Your task to perform on an android device: Open Amazon Image 0: 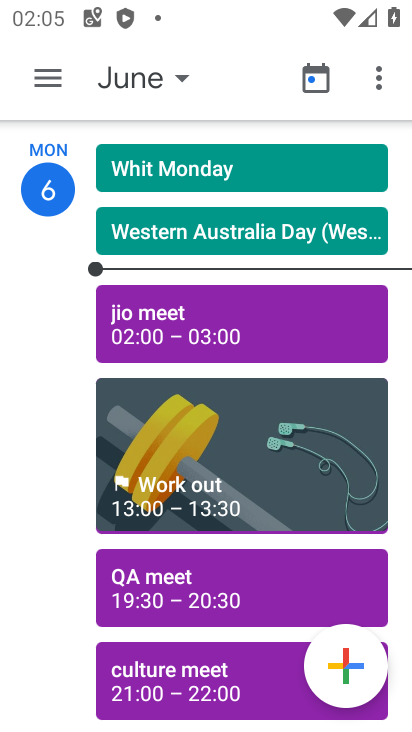
Step 0: press home button
Your task to perform on an android device: Open Amazon Image 1: 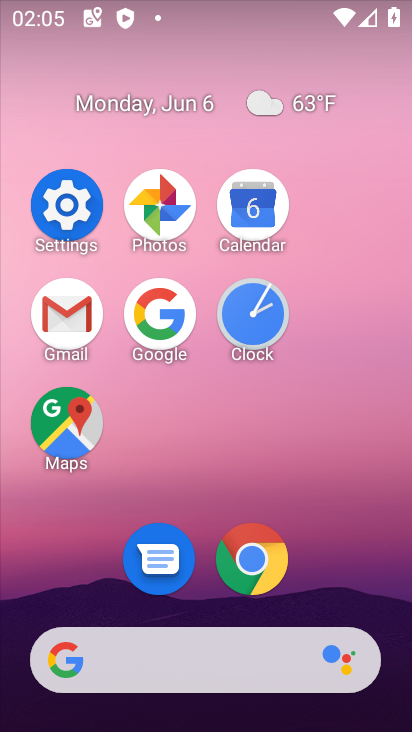
Step 1: click (236, 542)
Your task to perform on an android device: Open Amazon Image 2: 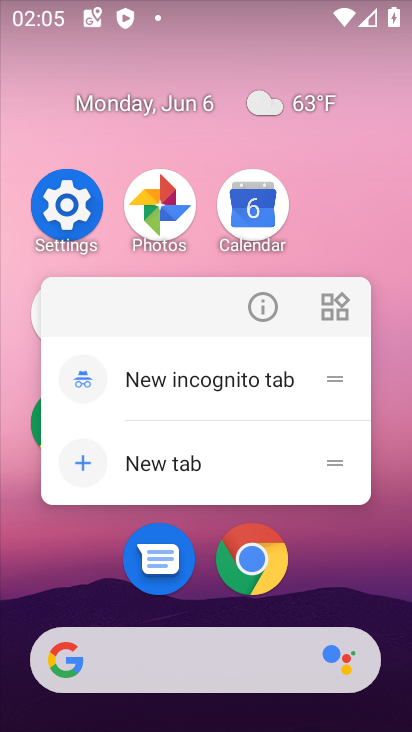
Step 2: click (248, 557)
Your task to perform on an android device: Open Amazon Image 3: 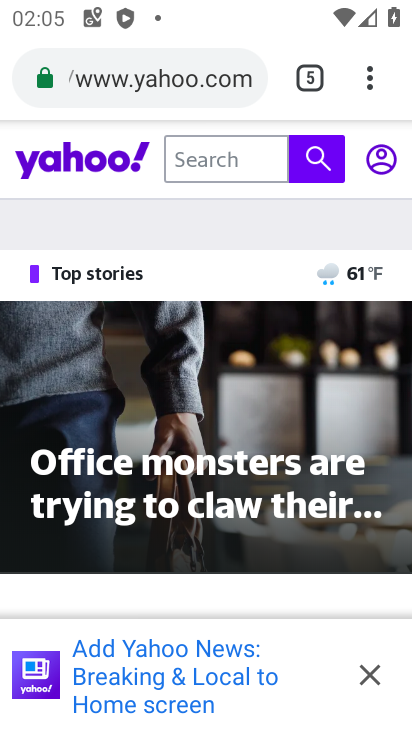
Step 3: click (321, 81)
Your task to perform on an android device: Open Amazon Image 4: 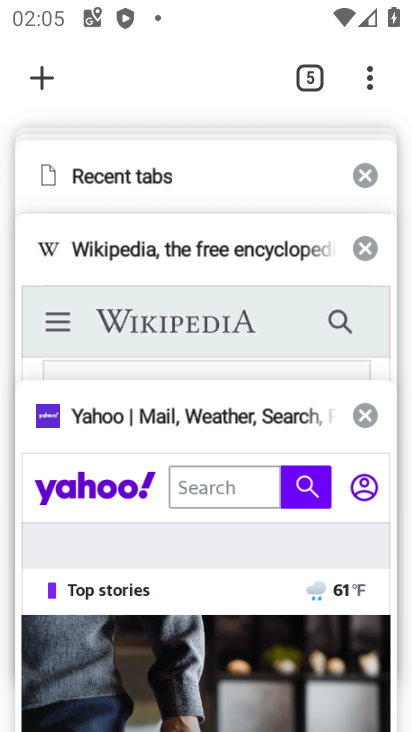
Step 4: drag from (206, 223) to (187, 551)
Your task to perform on an android device: Open Amazon Image 5: 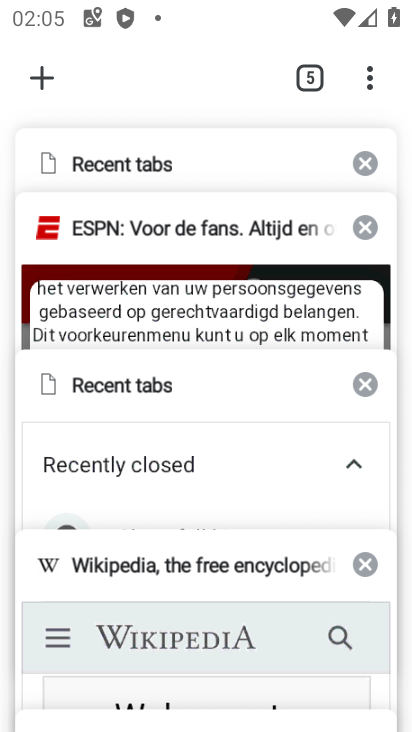
Step 5: drag from (177, 204) to (229, 520)
Your task to perform on an android device: Open Amazon Image 6: 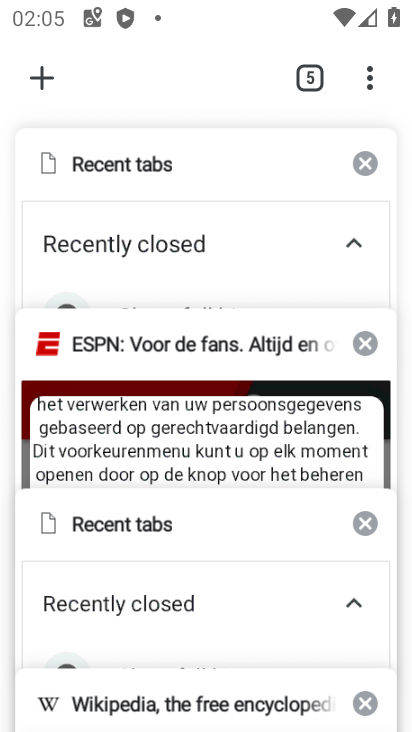
Step 6: click (45, 78)
Your task to perform on an android device: Open Amazon Image 7: 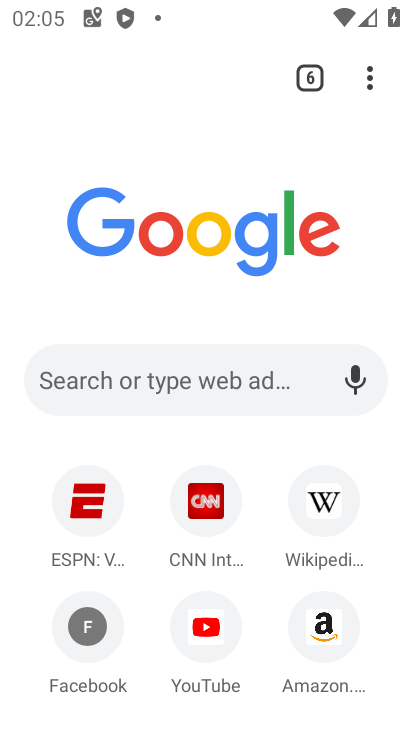
Step 7: click (309, 613)
Your task to perform on an android device: Open Amazon Image 8: 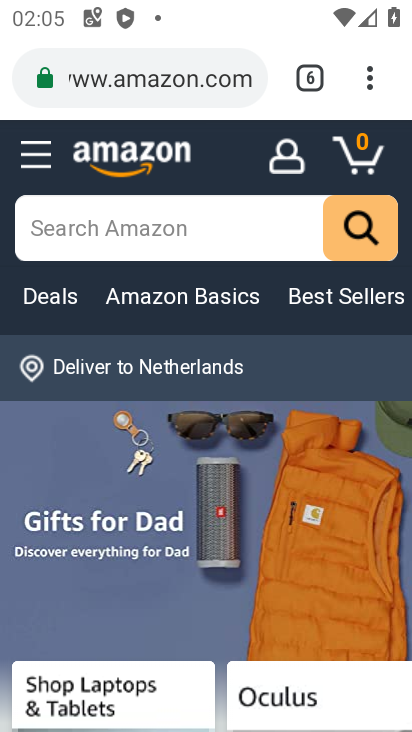
Step 8: task complete